Your task to perform on an android device: set default search engine in the chrome app Image 0: 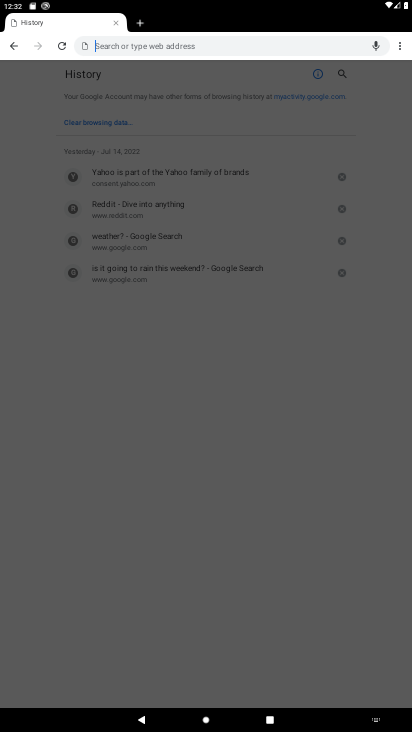
Step 0: press back button
Your task to perform on an android device: set default search engine in the chrome app Image 1: 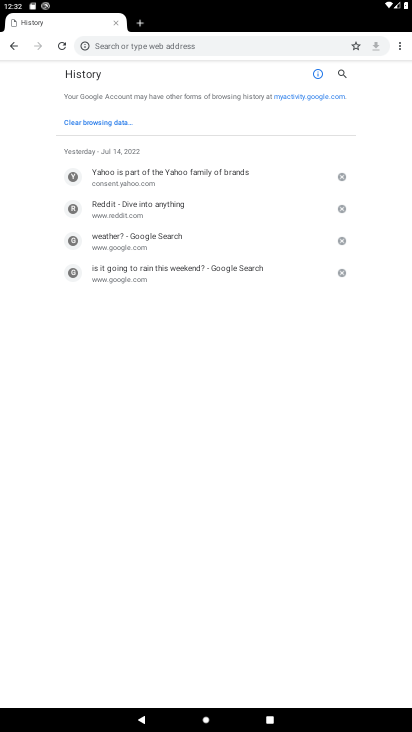
Step 1: drag from (399, 47) to (299, 412)
Your task to perform on an android device: set default search engine in the chrome app Image 2: 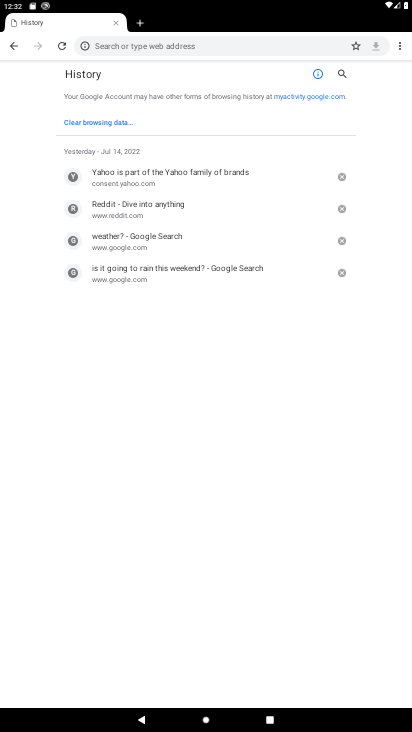
Step 2: drag from (404, 48) to (309, 215)
Your task to perform on an android device: set default search engine in the chrome app Image 3: 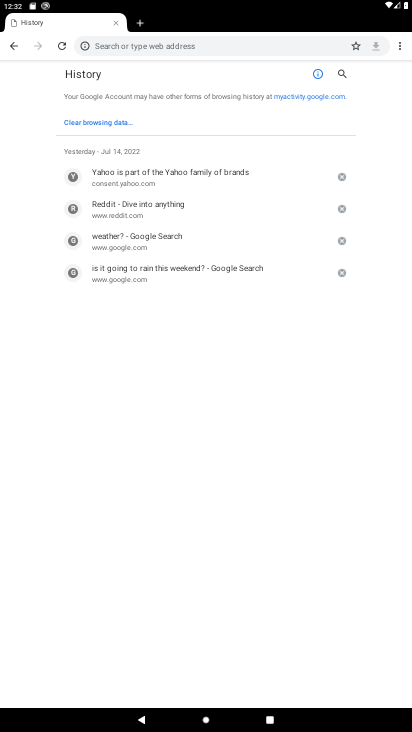
Step 3: click (310, 215)
Your task to perform on an android device: set default search engine in the chrome app Image 4: 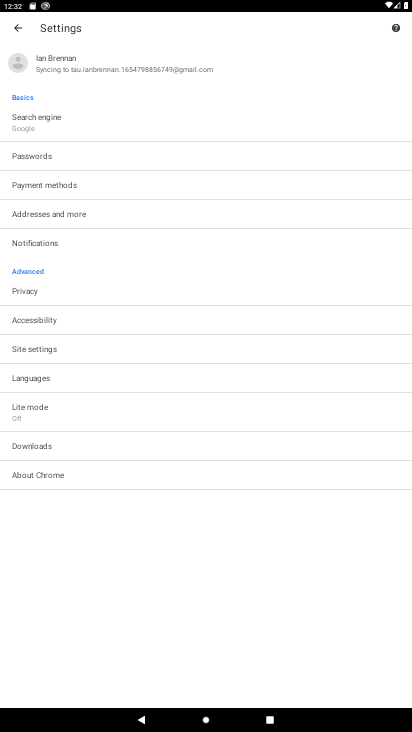
Step 4: click (33, 347)
Your task to perform on an android device: set default search engine in the chrome app Image 5: 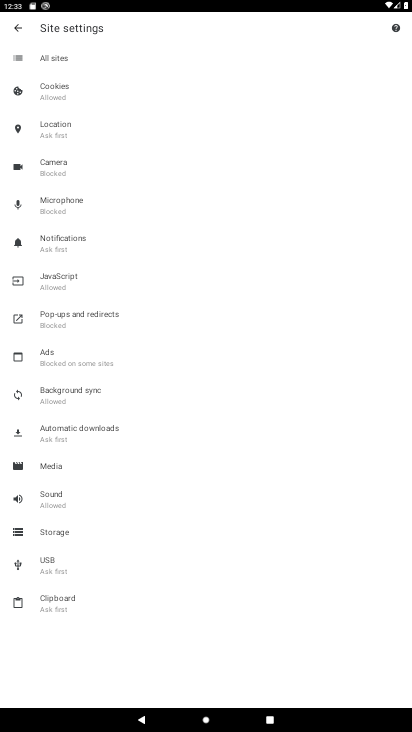
Step 5: click (16, 31)
Your task to perform on an android device: set default search engine in the chrome app Image 6: 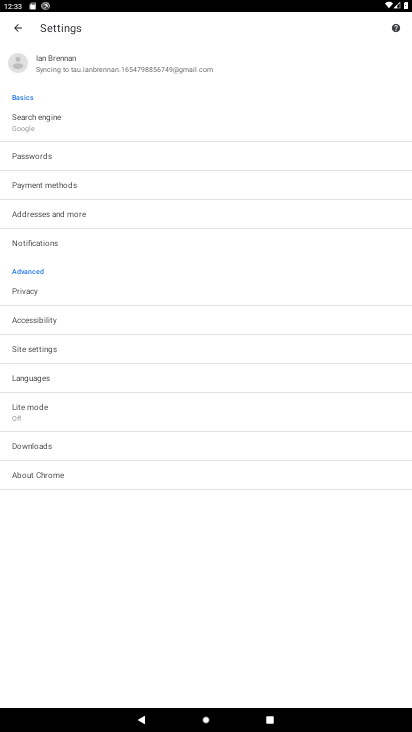
Step 6: click (27, 116)
Your task to perform on an android device: set default search engine in the chrome app Image 7: 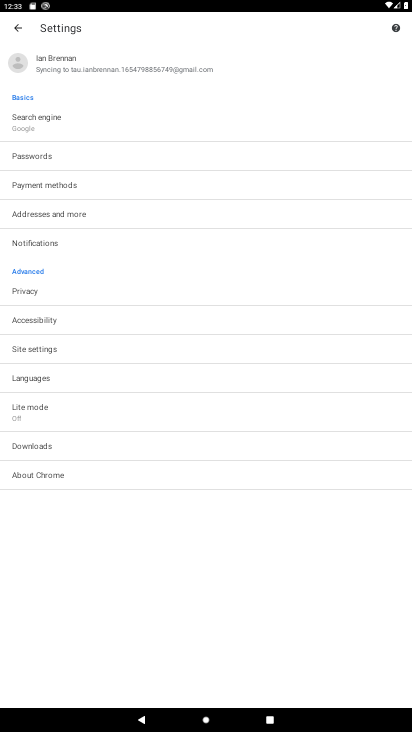
Step 7: click (19, 118)
Your task to perform on an android device: set default search engine in the chrome app Image 8: 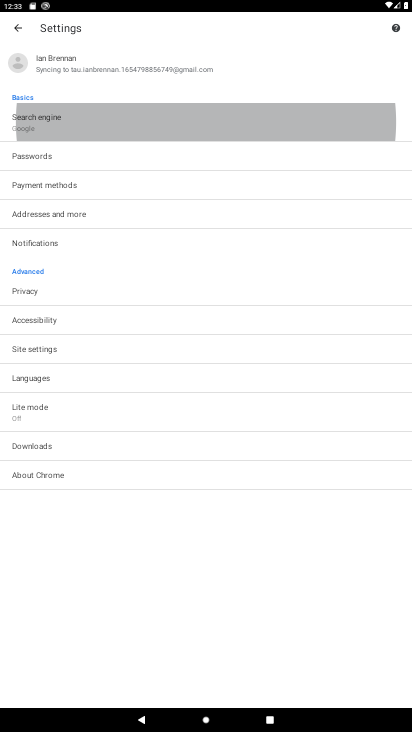
Step 8: click (24, 119)
Your task to perform on an android device: set default search engine in the chrome app Image 9: 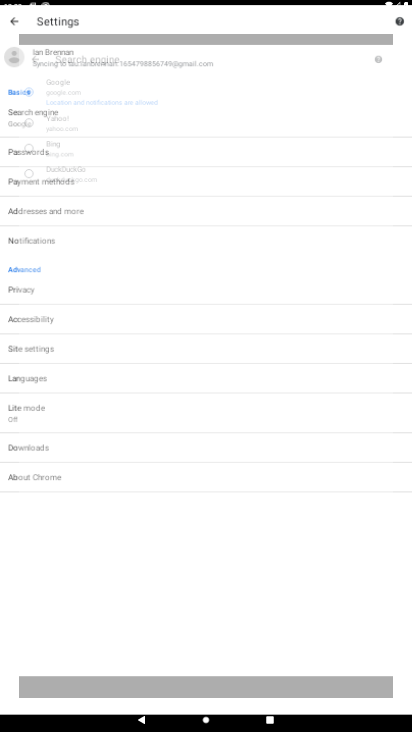
Step 9: click (22, 120)
Your task to perform on an android device: set default search engine in the chrome app Image 10: 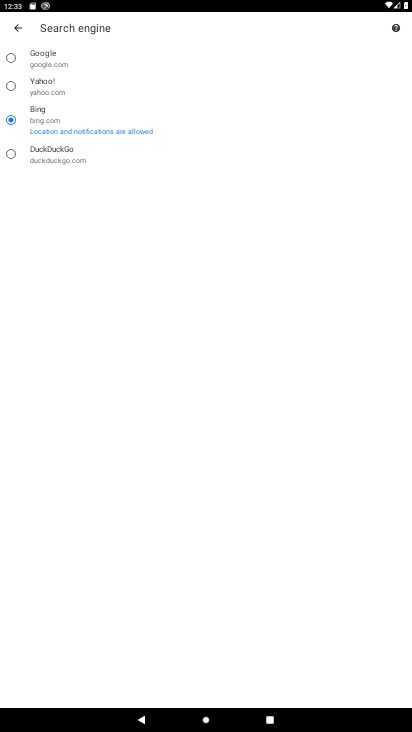
Step 10: task complete